Your task to perform on an android device: Open Google Maps Image 0: 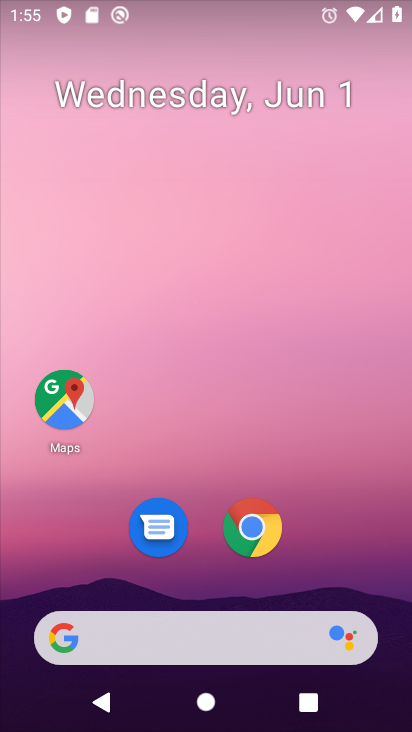
Step 0: click (72, 401)
Your task to perform on an android device: Open Google Maps Image 1: 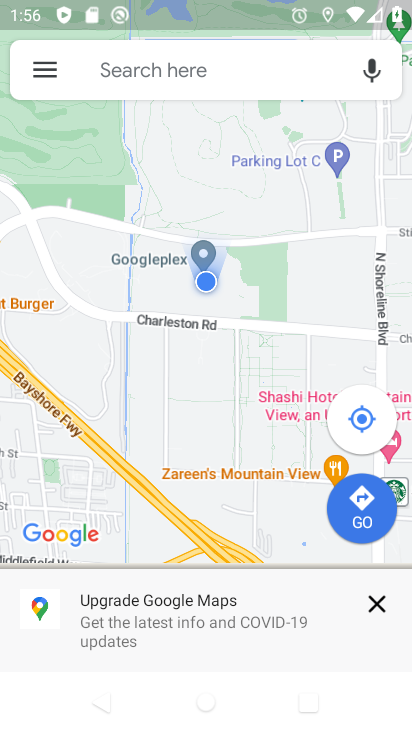
Step 1: task complete